Your task to perform on an android device: When is my next meeting? Image 0: 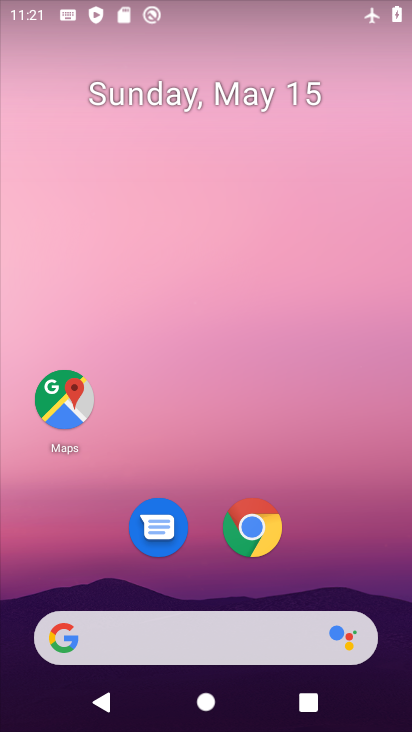
Step 0: drag from (318, 358) to (284, 71)
Your task to perform on an android device: When is my next meeting? Image 1: 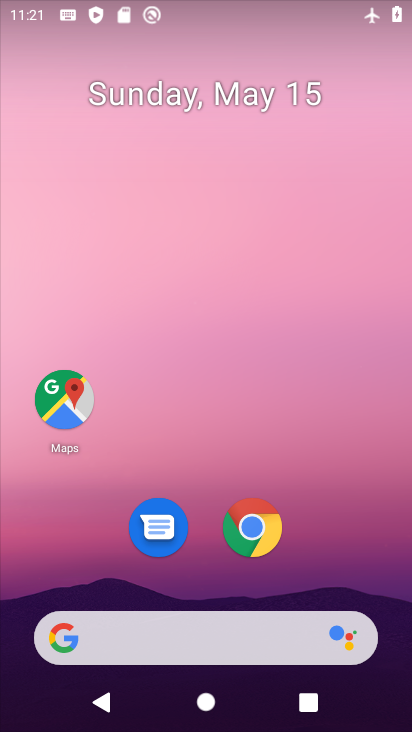
Step 1: drag from (400, 675) to (292, 38)
Your task to perform on an android device: When is my next meeting? Image 2: 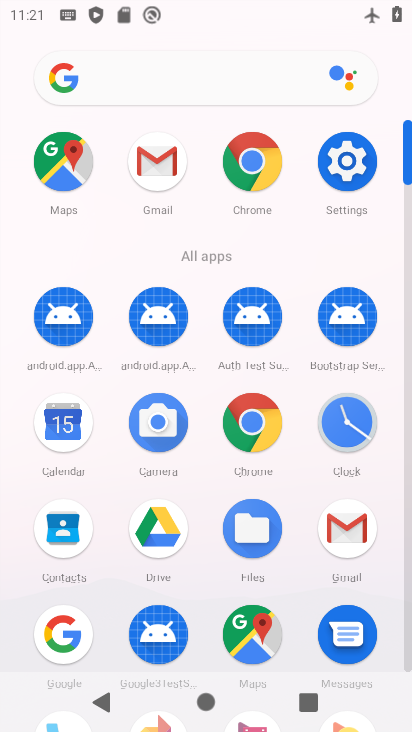
Step 2: click (60, 414)
Your task to perform on an android device: When is my next meeting? Image 3: 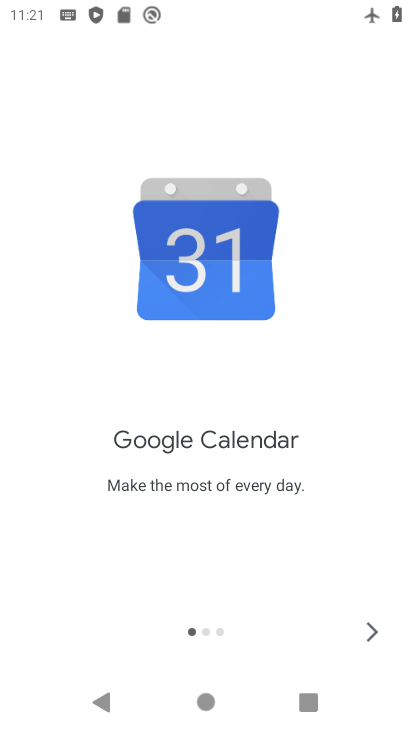
Step 3: click (365, 632)
Your task to perform on an android device: When is my next meeting? Image 4: 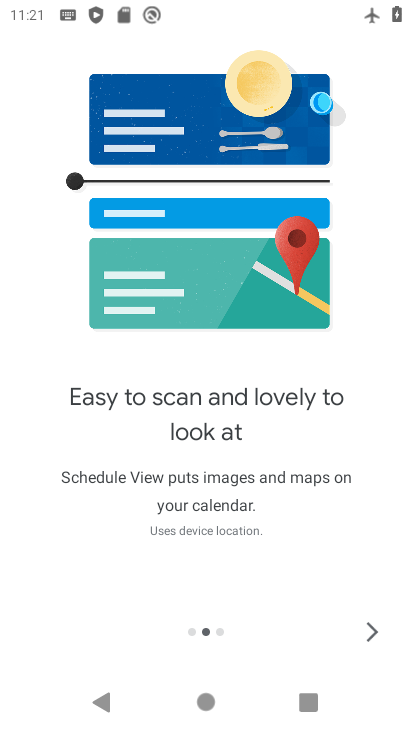
Step 4: click (365, 630)
Your task to perform on an android device: When is my next meeting? Image 5: 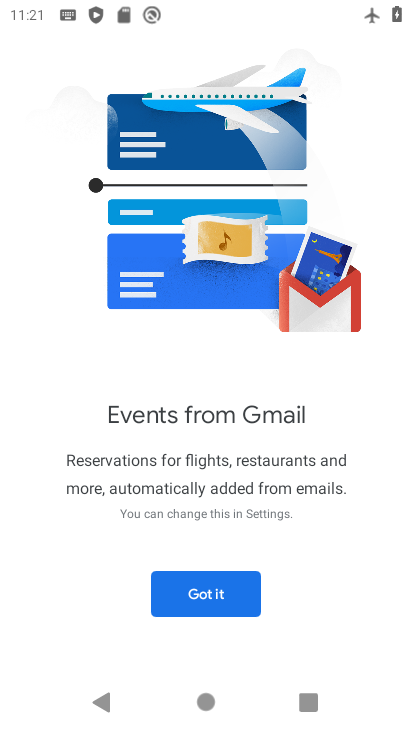
Step 5: click (234, 597)
Your task to perform on an android device: When is my next meeting? Image 6: 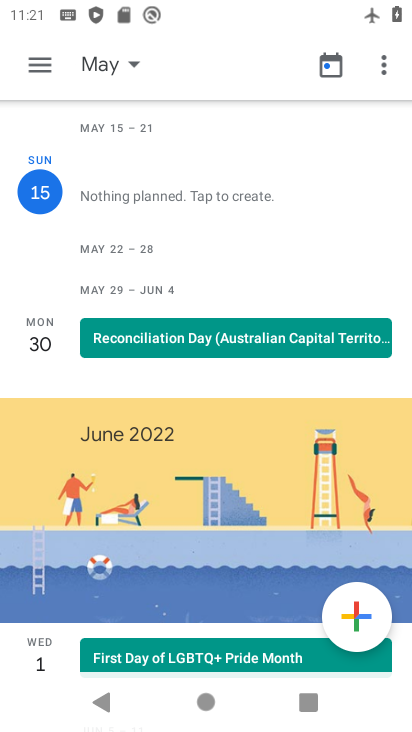
Step 6: click (39, 58)
Your task to perform on an android device: When is my next meeting? Image 7: 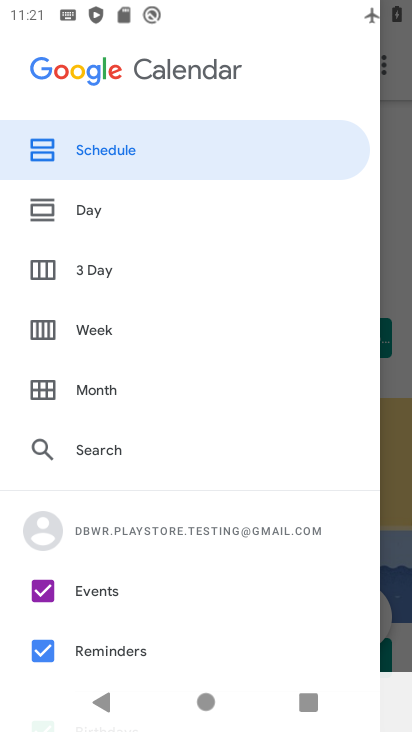
Step 7: click (123, 148)
Your task to perform on an android device: When is my next meeting? Image 8: 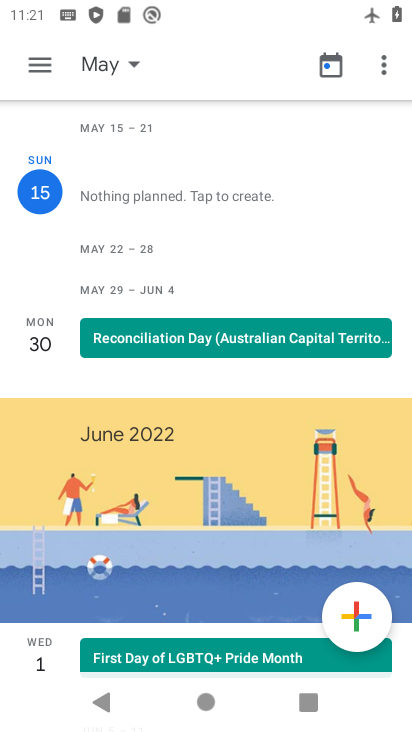
Step 8: task complete